Your task to perform on an android device: turn off airplane mode Image 0: 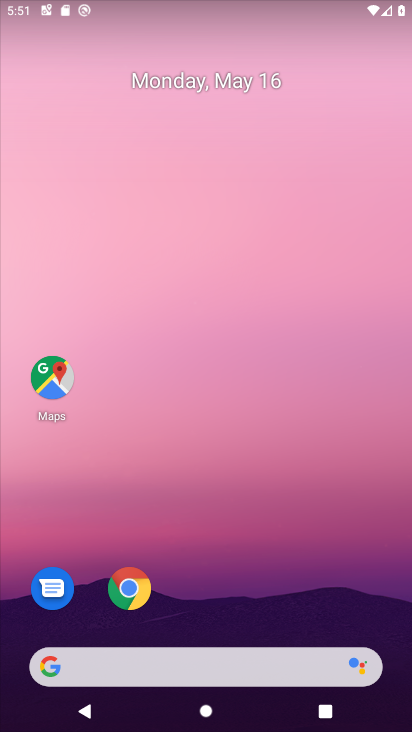
Step 0: drag from (271, 523) to (262, 13)
Your task to perform on an android device: turn off airplane mode Image 1: 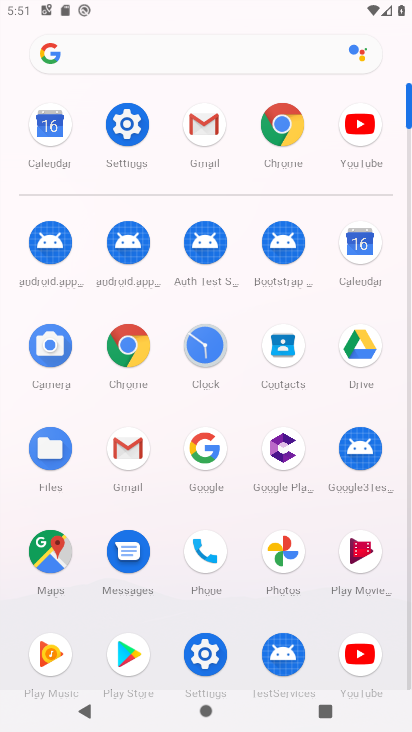
Step 1: click (139, 119)
Your task to perform on an android device: turn off airplane mode Image 2: 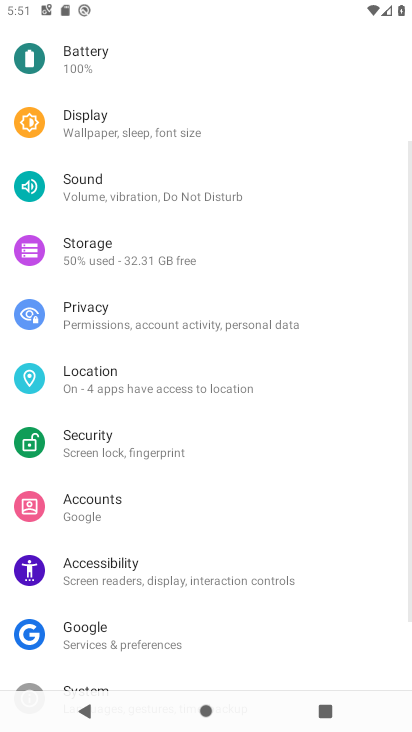
Step 2: drag from (216, 113) to (152, 597)
Your task to perform on an android device: turn off airplane mode Image 3: 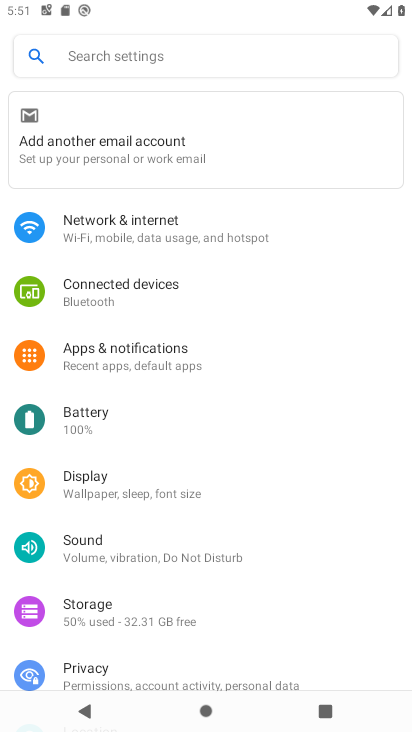
Step 3: click (149, 238)
Your task to perform on an android device: turn off airplane mode Image 4: 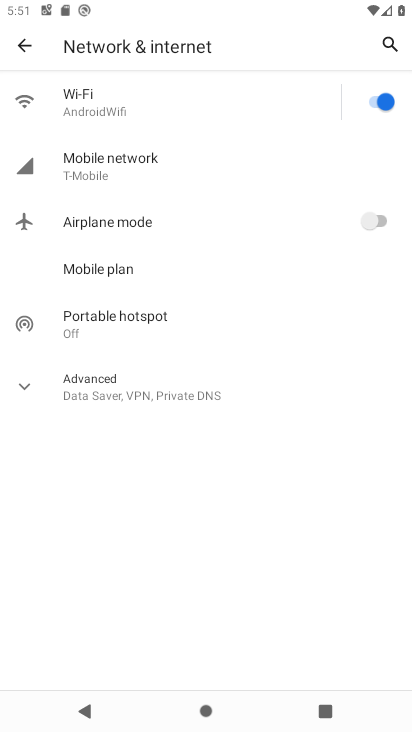
Step 4: click (370, 220)
Your task to perform on an android device: turn off airplane mode Image 5: 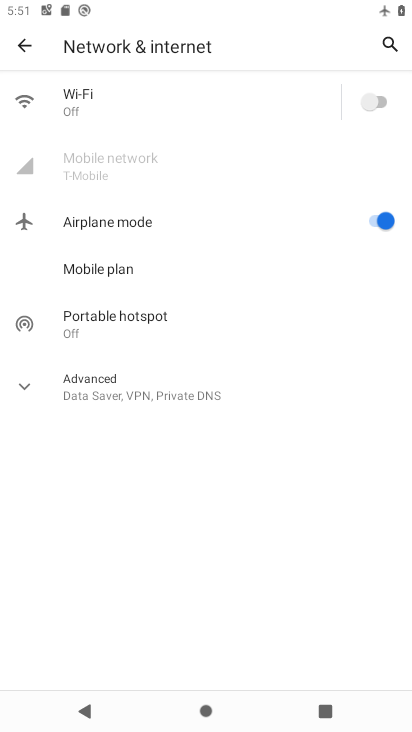
Step 5: click (370, 220)
Your task to perform on an android device: turn off airplane mode Image 6: 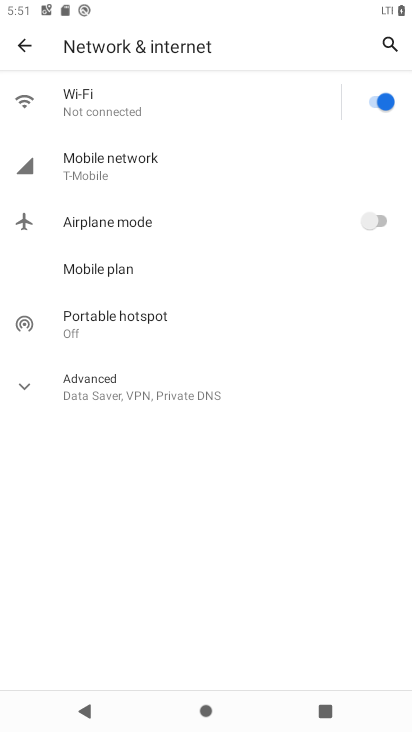
Step 6: click (363, 100)
Your task to perform on an android device: turn off airplane mode Image 7: 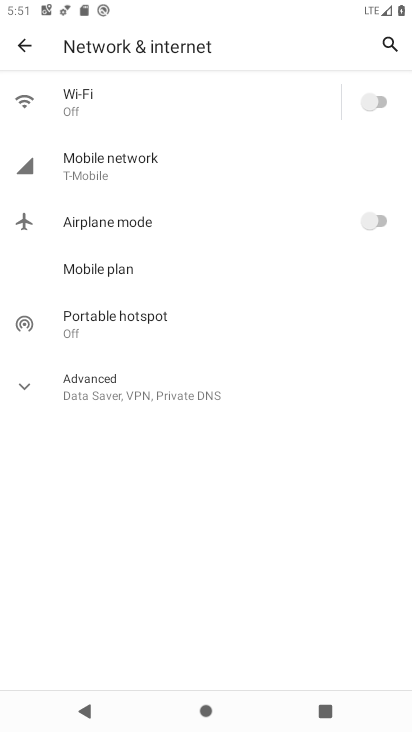
Step 7: click (367, 95)
Your task to perform on an android device: turn off airplane mode Image 8: 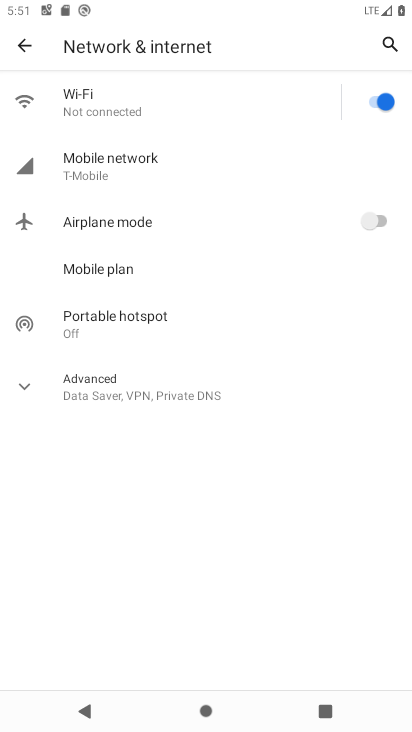
Step 8: task complete